Your task to perform on an android device: empty trash in google photos Image 0: 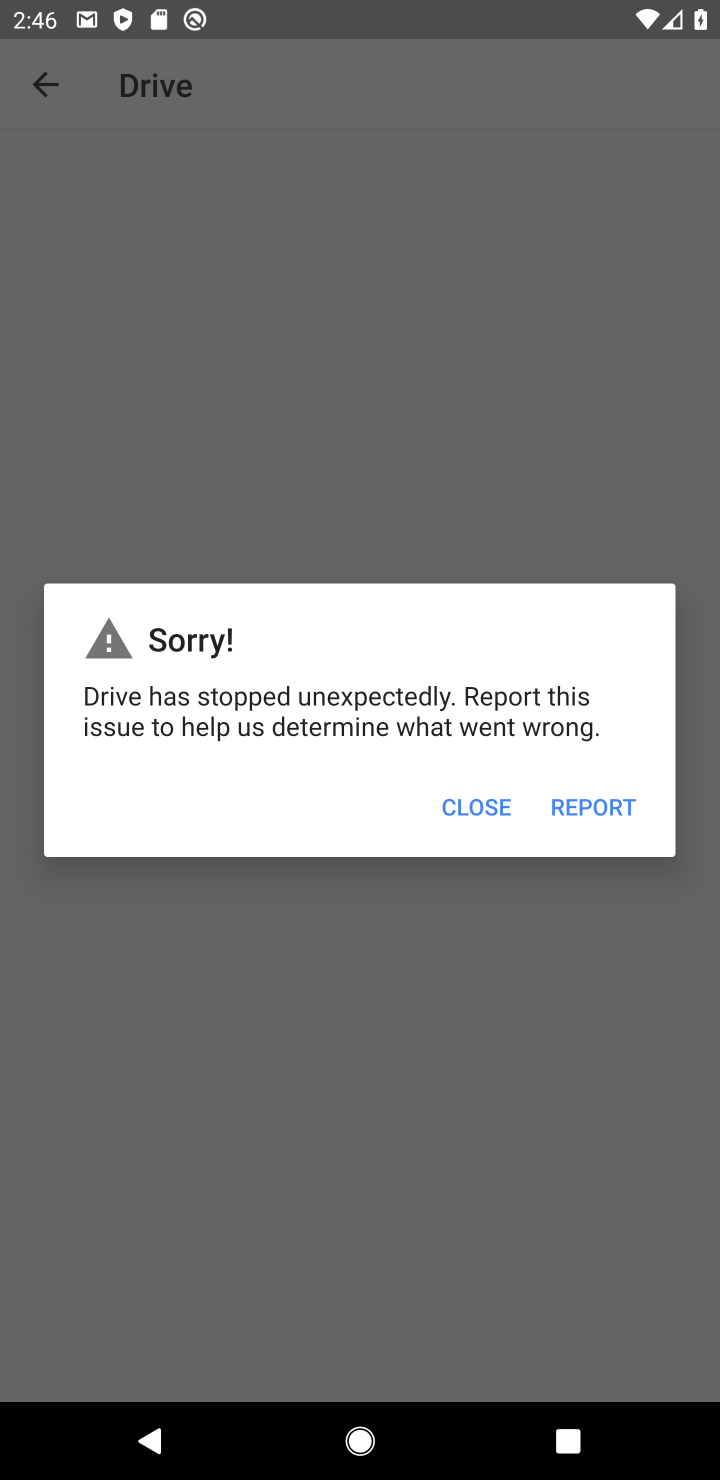
Step 0: press back button
Your task to perform on an android device: empty trash in google photos Image 1: 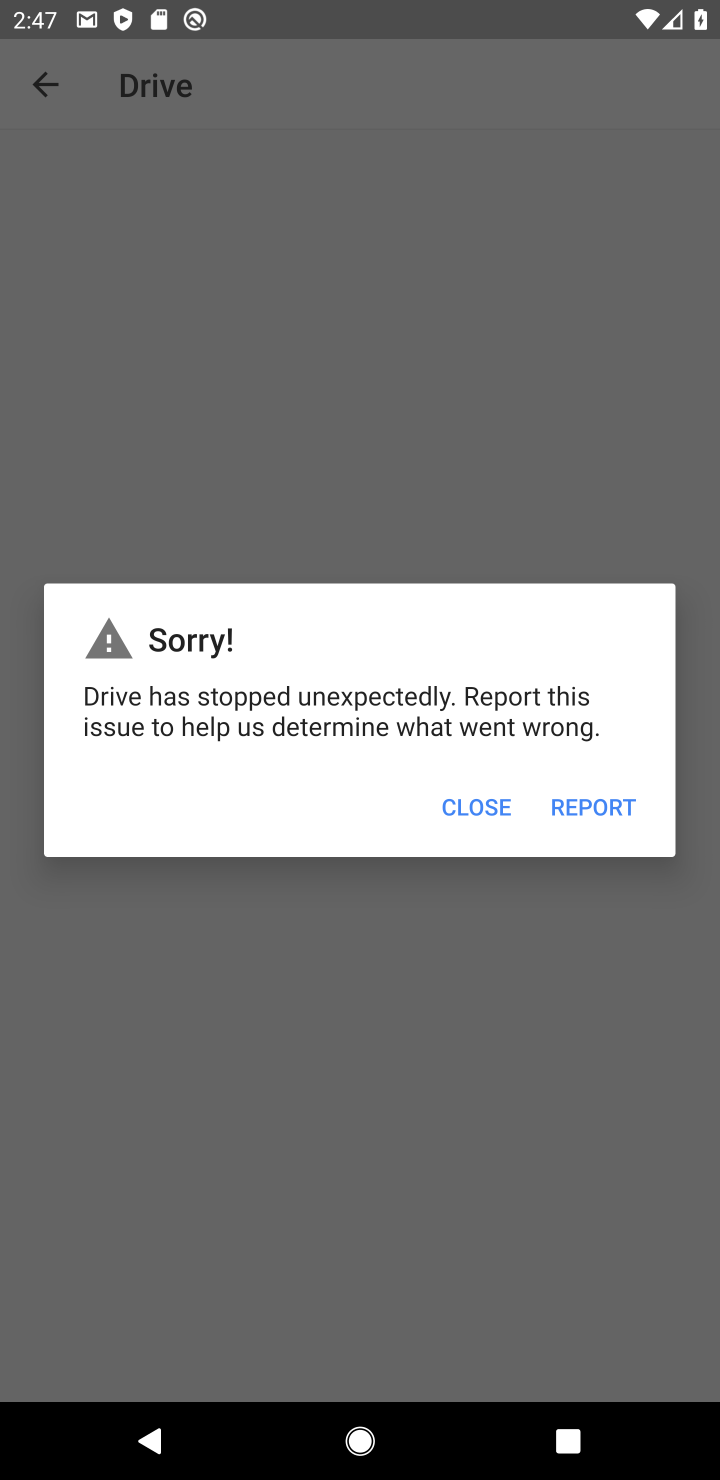
Step 1: press home button
Your task to perform on an android device: empty trash in google photos Image 2: 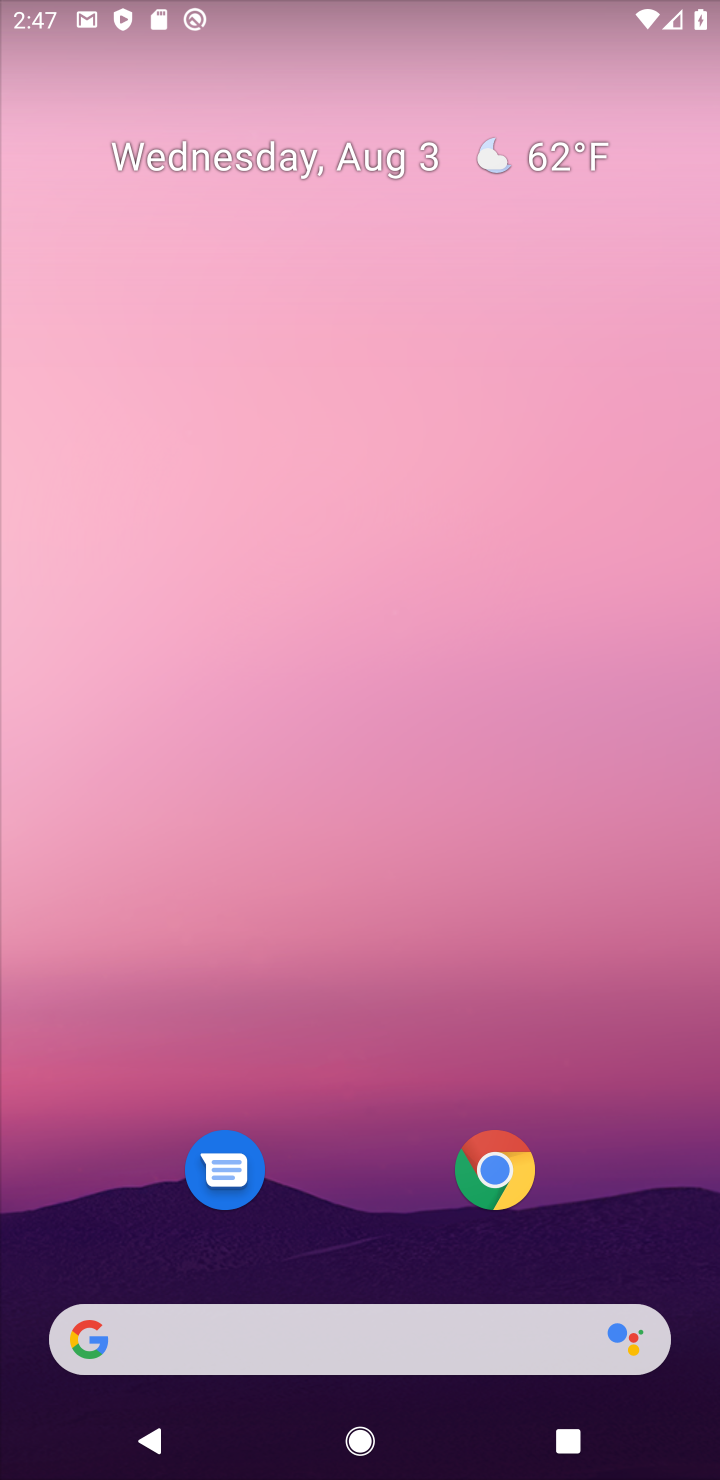
Step 2: click (461, 441)
Your task to perform on an android device: empty trash in google photos Image 3: 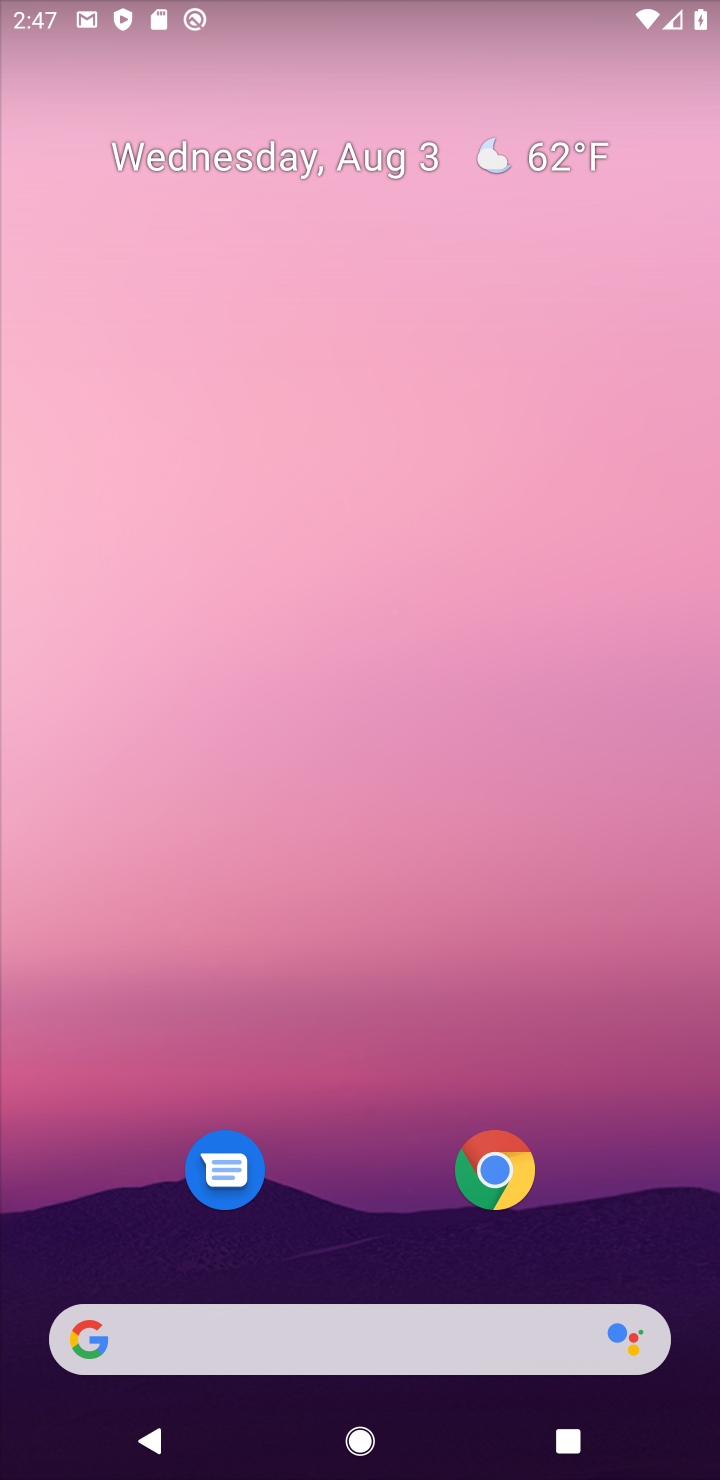
Step 3: drag from (258, 931) to (378, 513)
Your task to perform on an android device: empty trash in google photos Image 4: 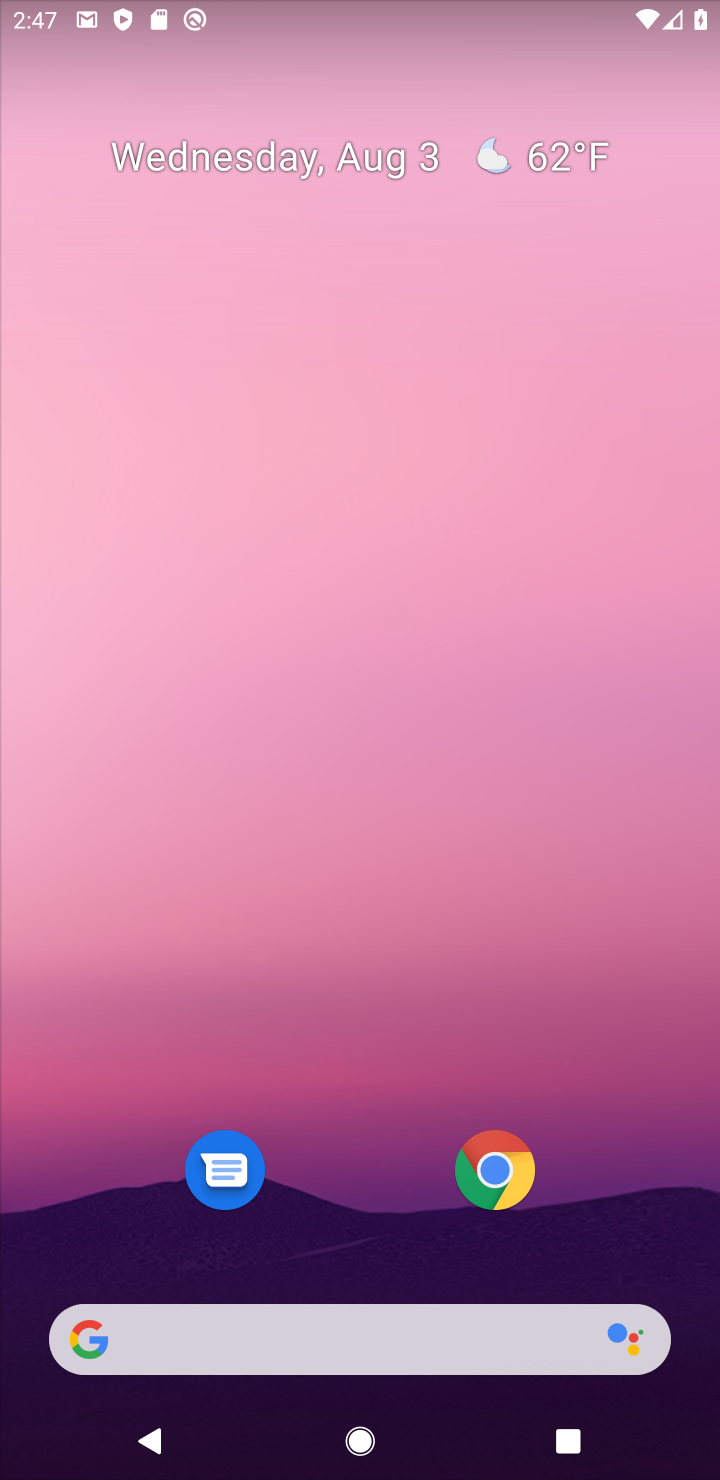
Step 4: drag from (355, 1034) to (452, 244)
Your task to perform on an android device: empty trash in google photos Image 5: 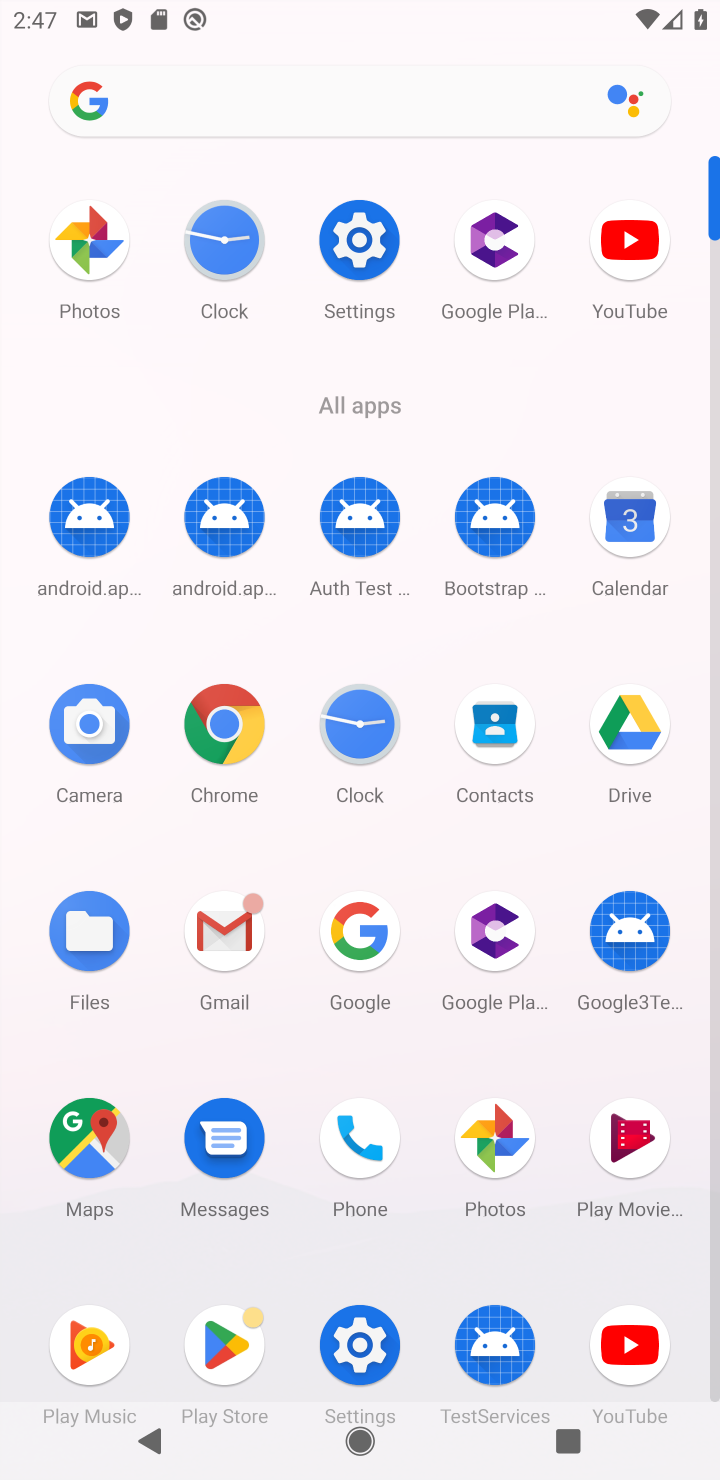
Step 5: click (508, 1180)
Your task to perform on an android device: empty trash in google photos Image 6: 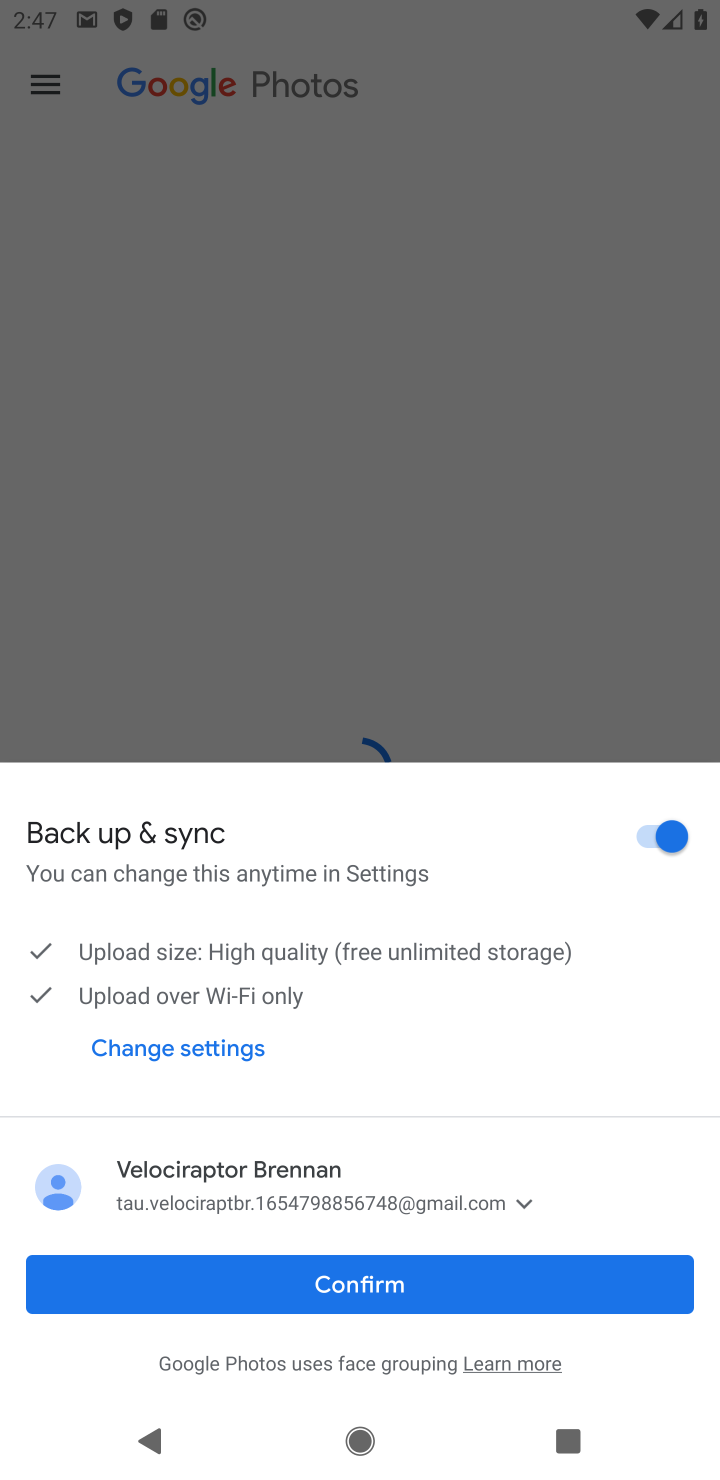
Step 6: click (341, 1274)
Your task to perform on an android device: empty trash in google photos Image 7: 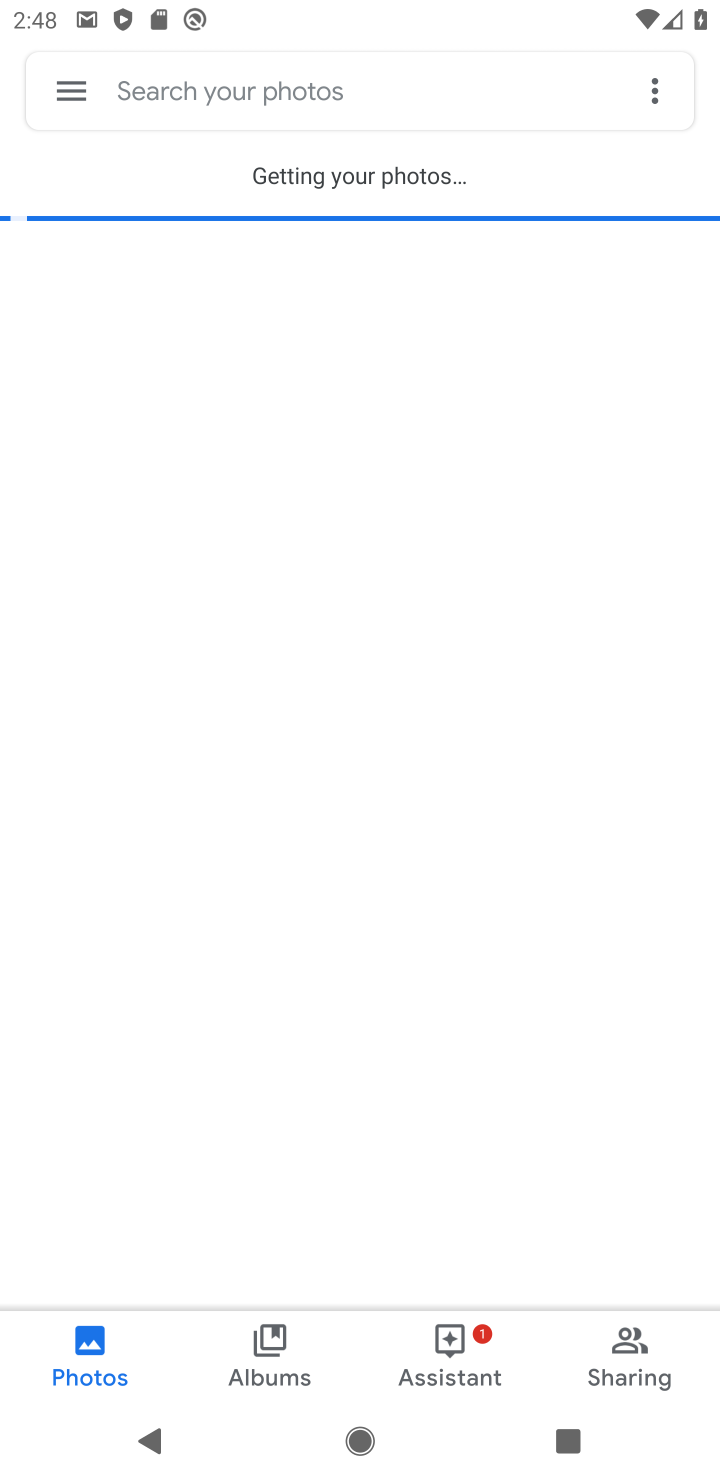
Step 7: click (72, 100)
Your task to perform on an android device: empty trash in google photos Image 8: 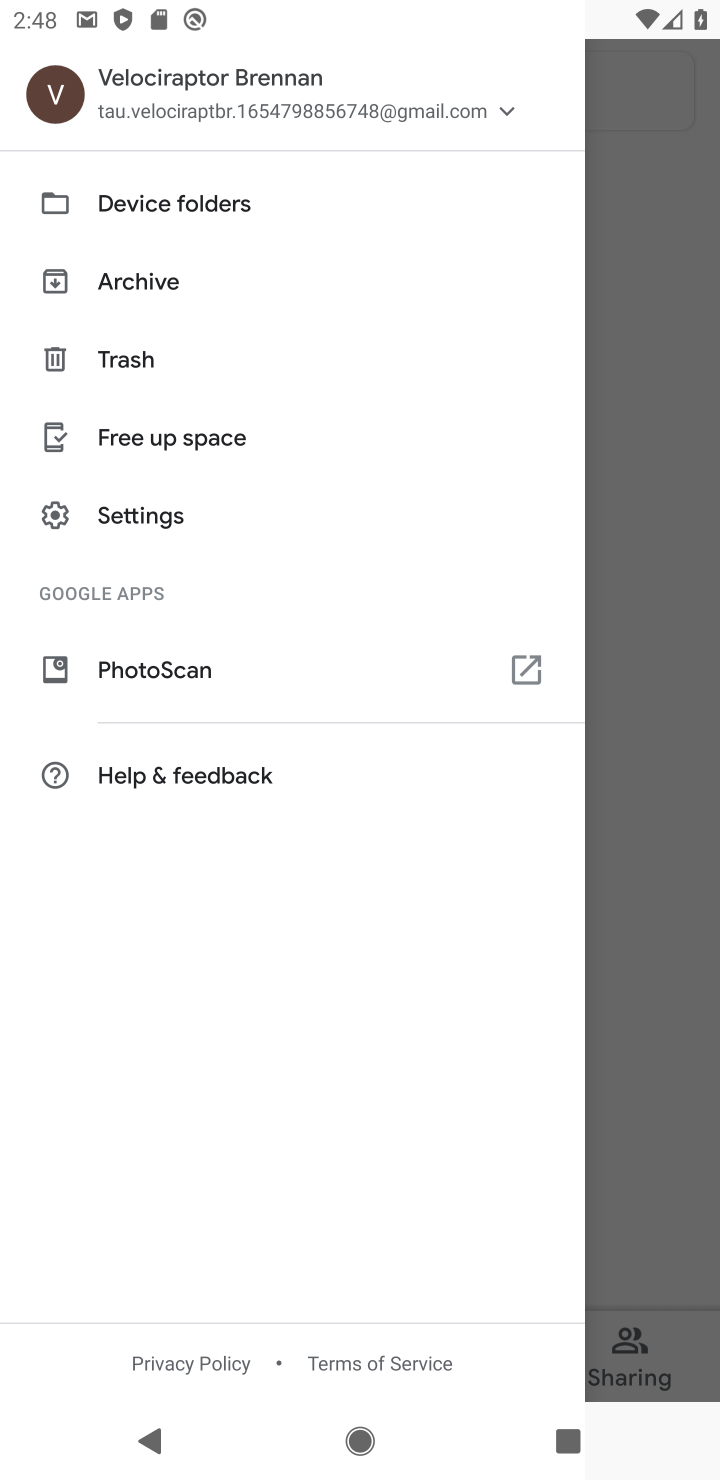
Step 8: click (100, 361)
Your task to perform on an android device: empty trash in google photos Image 9: 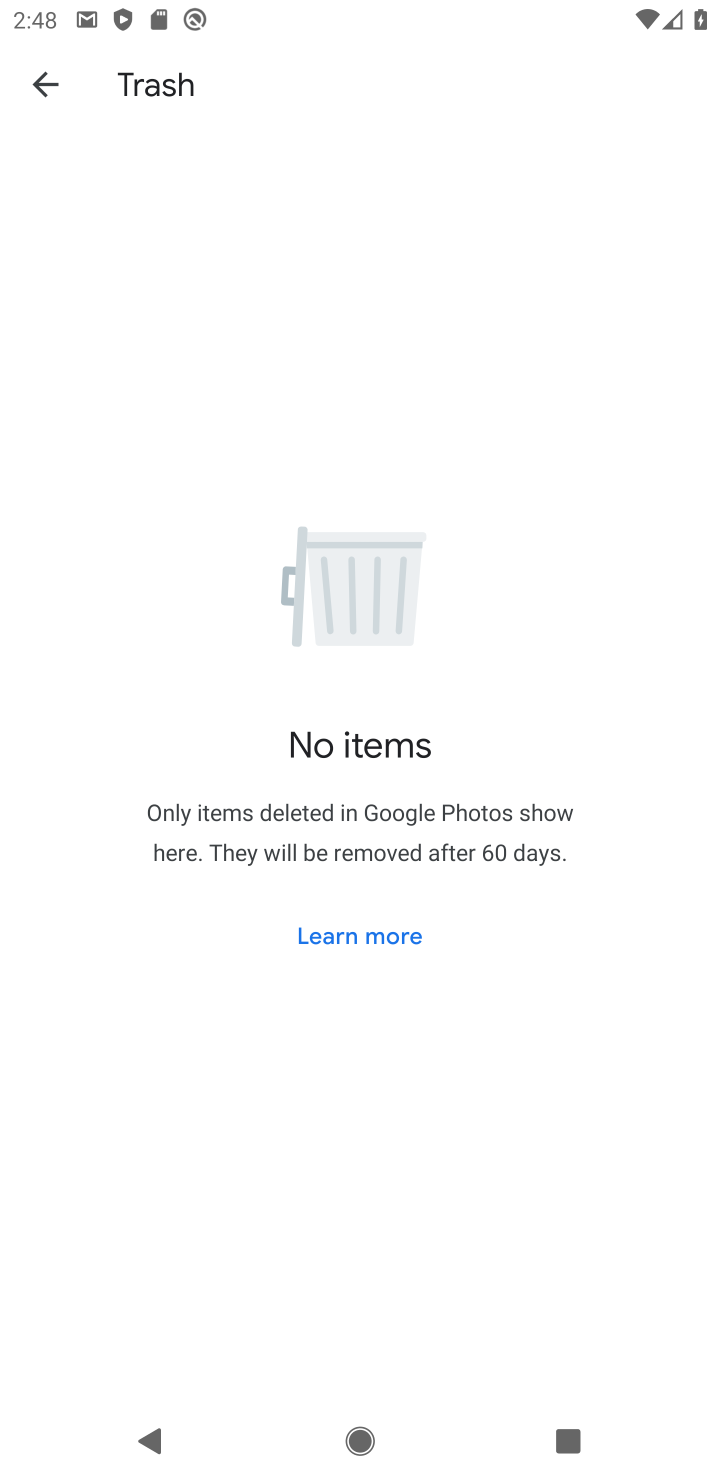
Step 9: task complete